Your task to perform on an android device: Show me productivity apps on the Play Store Image 0: 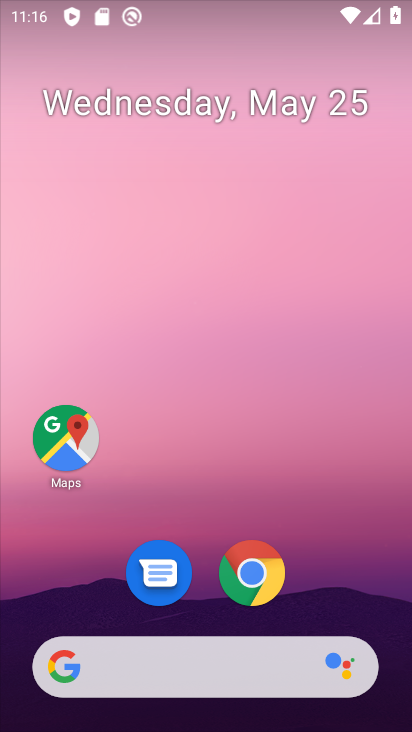
Step 0: drag from (255, 640) to (273, 59)
Your task to perform on an android device: Show me productivity apps on the Play Store Image 1: 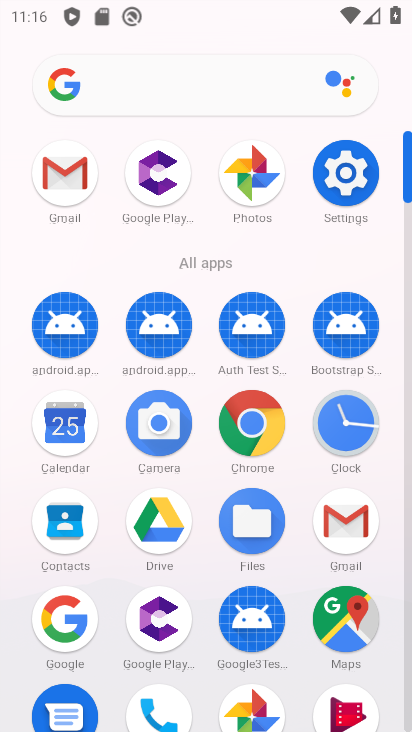
Step 1: drag from (197, 661) to (197, 140)
Your task to perform on an android device: Show me productivity apps on the Play Store Image 2: 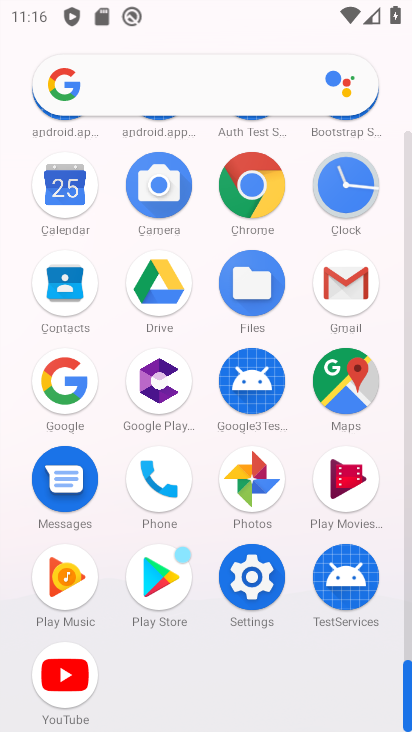
Step 2: click (170, 575)
Your task to perform on an android device: Show me productivity apps on the Play Store Image 3: 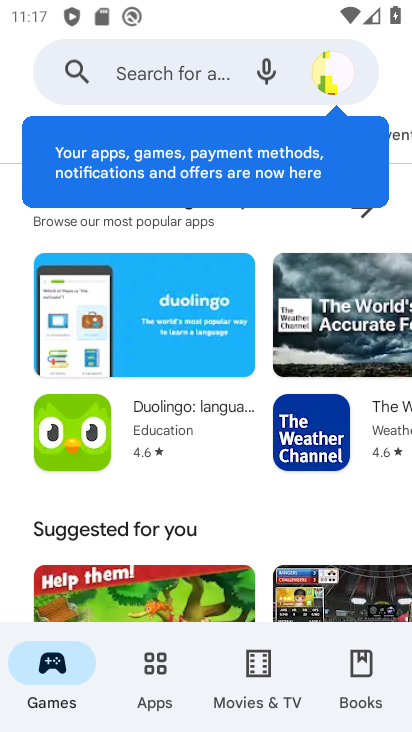
Step 3: click (162, 680)
Your task to perform on an android device: Show me productivity apps on the Play Store Image 4: 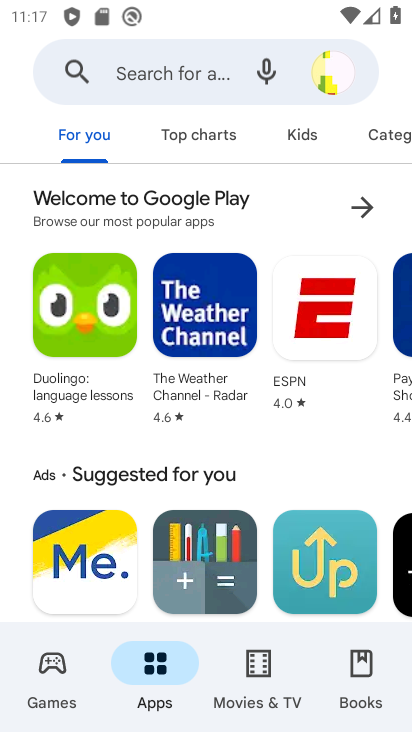
Step 4: click (368, 130)
Your task to perform on an android device: Show me productivity apps on the Play Store Image 5: 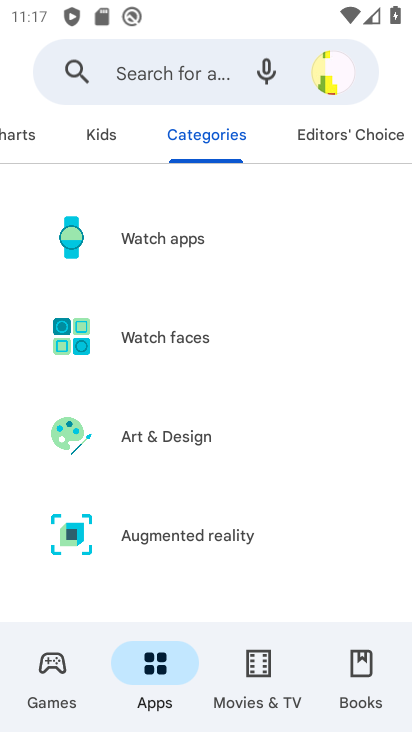
Step 5: drag from (196, 553) to (34, 15)
Your task to perform on an android device: Show me productivity apps on the Play Store Image 6: 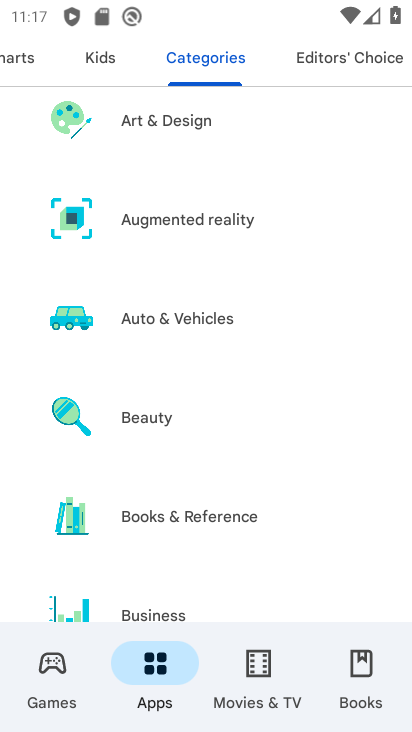
Step 6: drag from (195, 649) to (179, 231)
Your task to perform on an android device: Show me productivity apps on the Play Store Image 7: 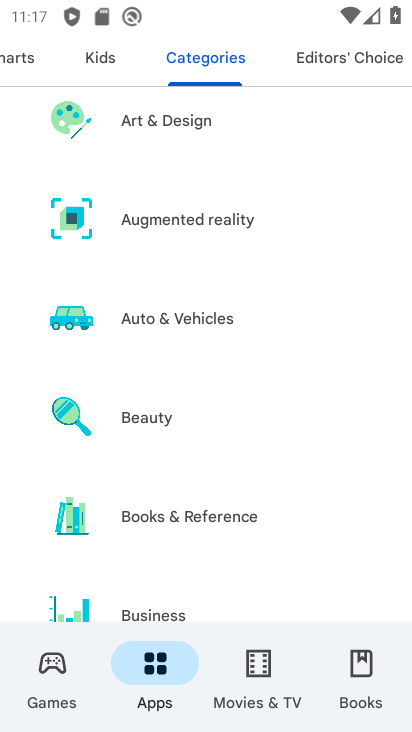
Step 7: drag from (159, 606) to (175, 97)
Your task to perform on an android device: Show me productivity apps on the Play Store Image 8: 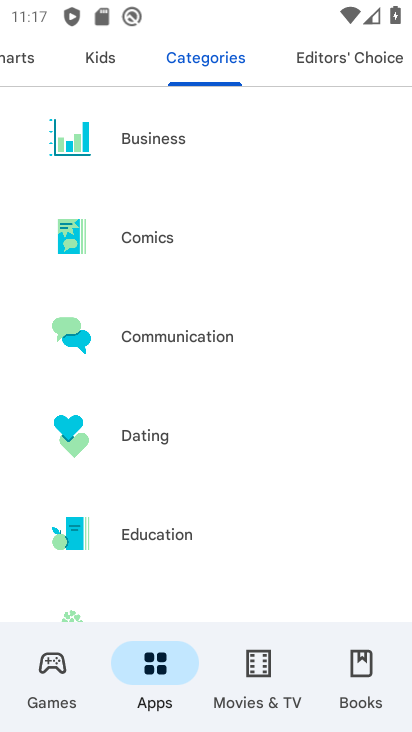
Step 8: drag from (236, 569) to (158, 102)
Your task to perform on an android device: Show me productivity apps on the Play Store Image 9: 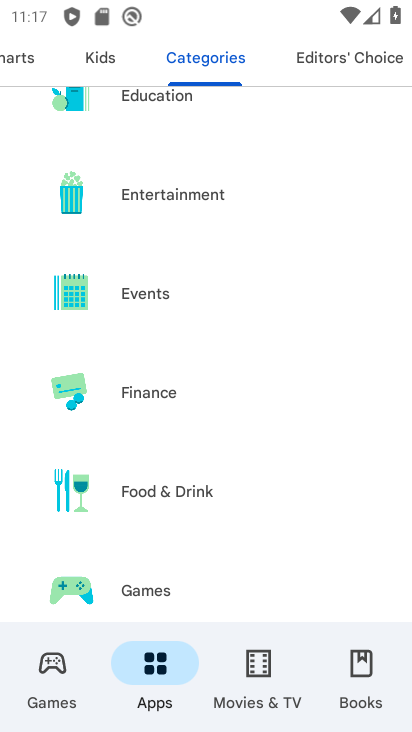
Step 9: drag from (179, 535) to (74, 90)
Your task to perform on an android device: Show me productivity apps on the Play Store Image 10: 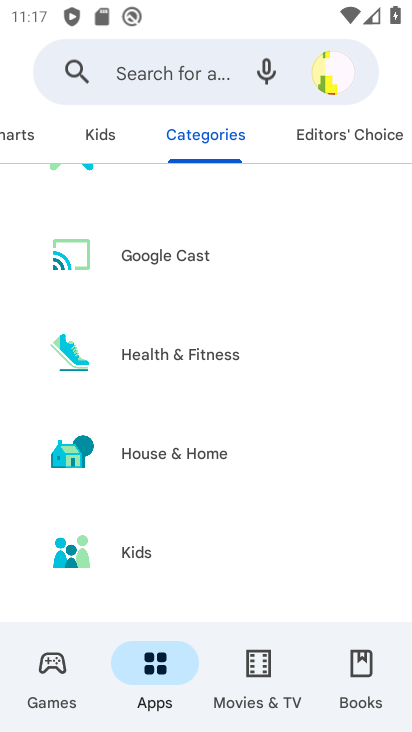
Step 10: drag from (178, 560) to (94, 31)
Your task to perform on an android device: Show me productivity apps on the Play Store Image 11: 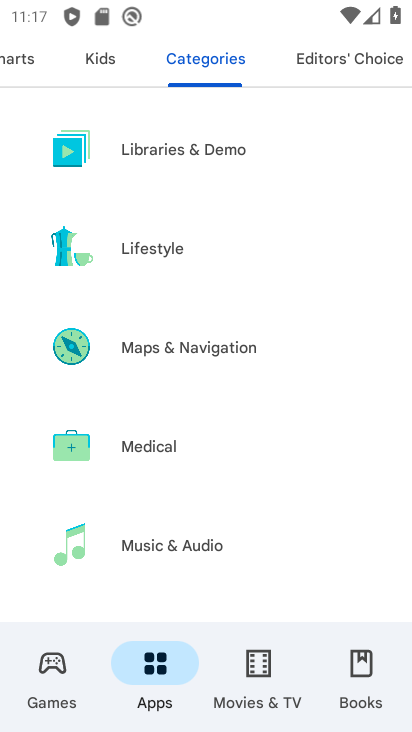
Step 11: drag from (142, 592) to (128, 9)
Your task to perform on an android device: Show me productivity apps on the Play Store Image 12: 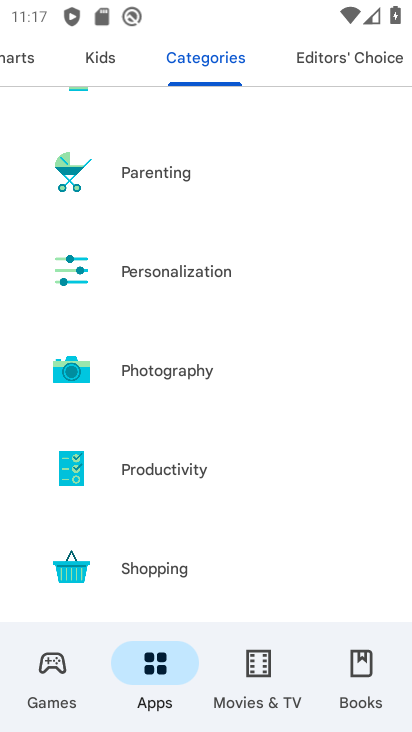
Step 12: click (154, 463)
Your task to perform on an android device: Show me productivity apps on the Play Store Image 13: 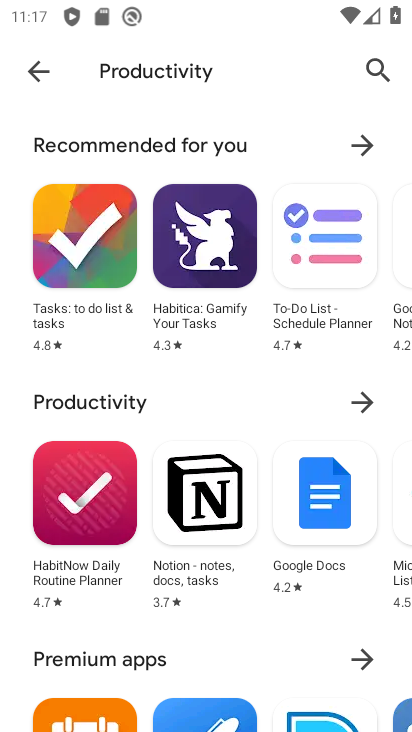
Step 13: task complete